Your task to perform on an android device: Open CNN.com Image 0: 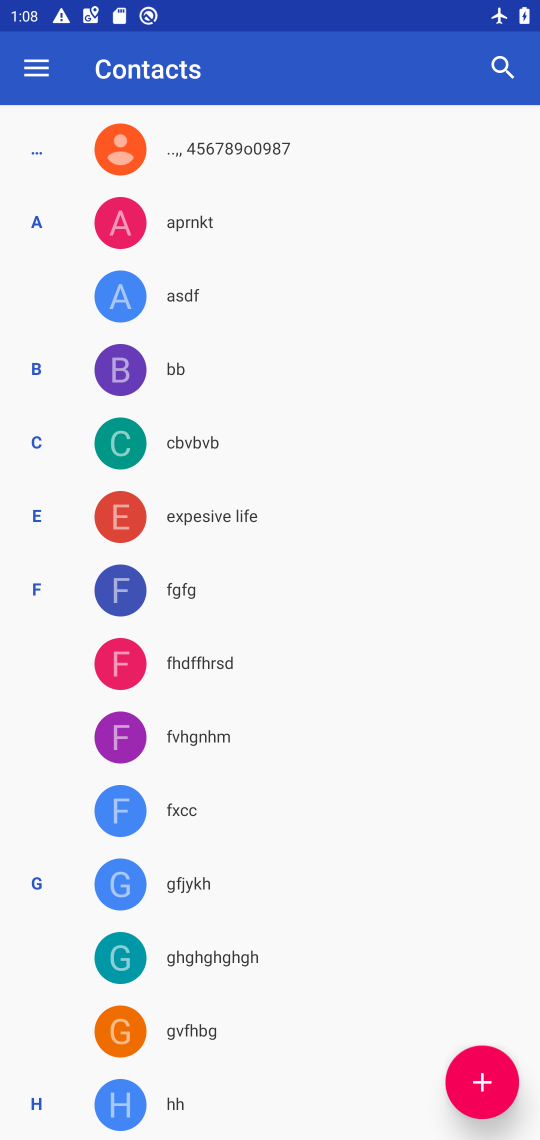
Step 0: press home button
Your task to perform on an android device: Open CNN.com Image 1: 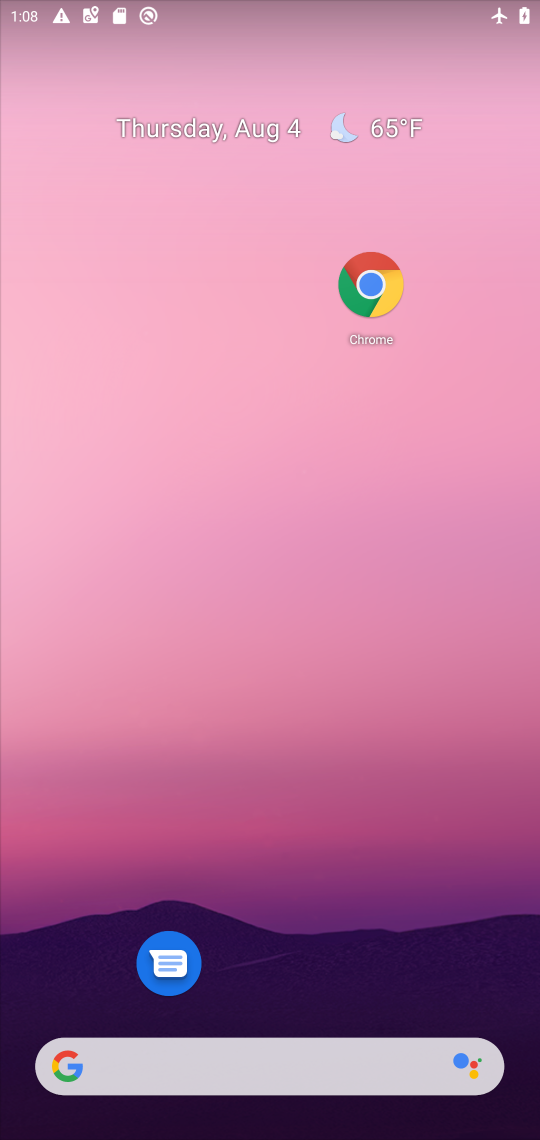
Step 1: drag from (270, 1013) to (257, 211)
Your task to perform on an android device: Open CNN.com Image 2: 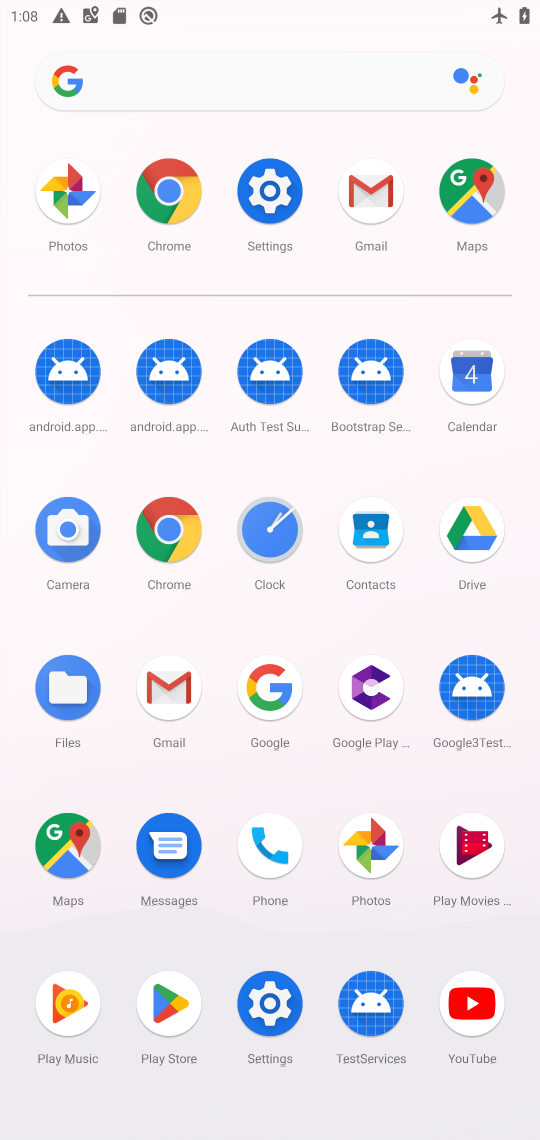
Step 2: click (180, 551)
Your task to perform on an android device: Open CNN.com Image 3: 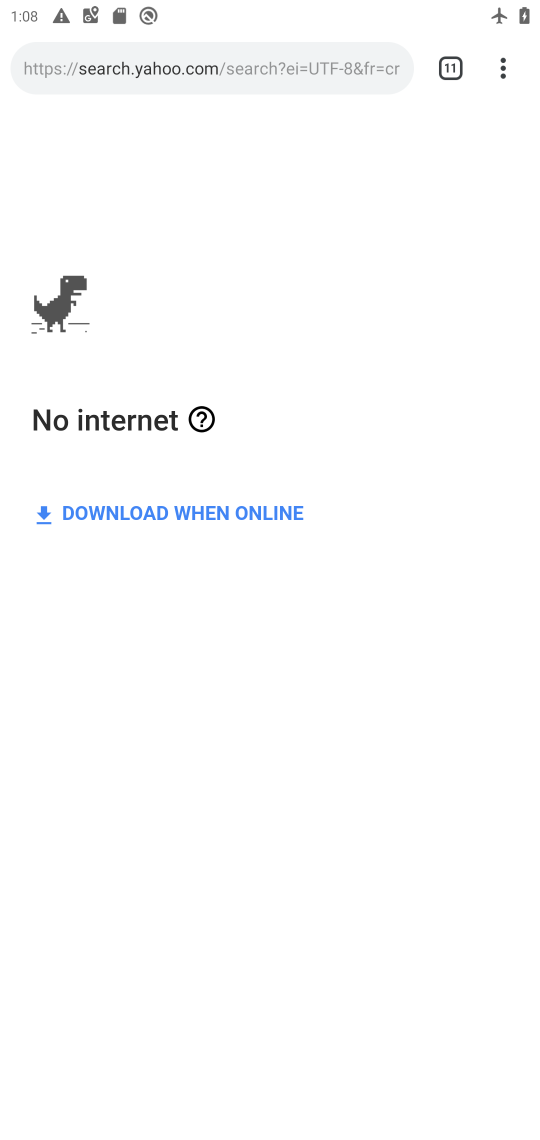
Step 3: click (505, 66)
Your task to perform on an android device: Open CNN.com Image 4: 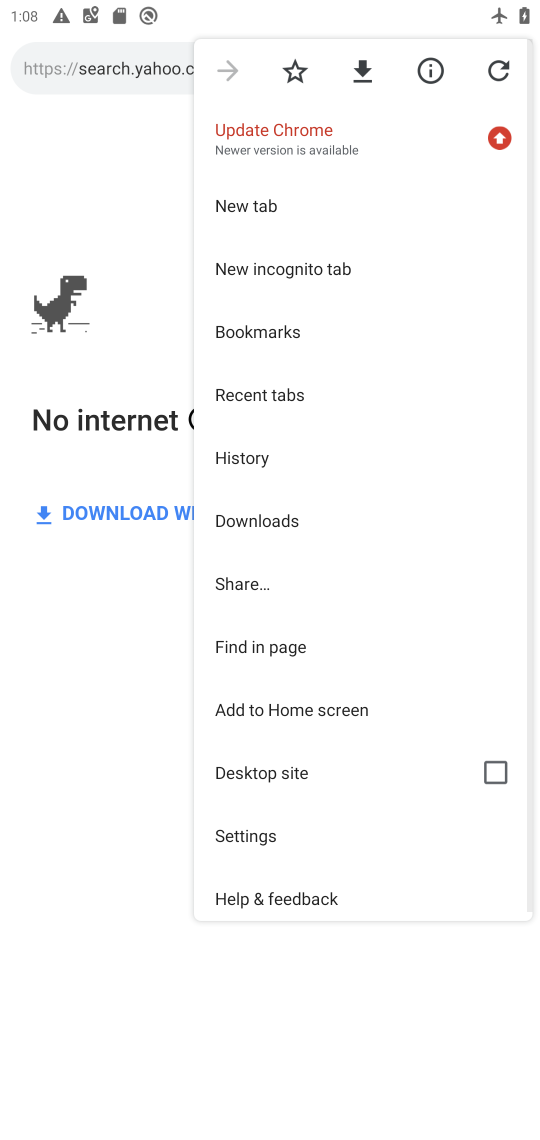
Step 4: click (279, 206)
Your task to perform on an android device: Open CNN.com Image 5: 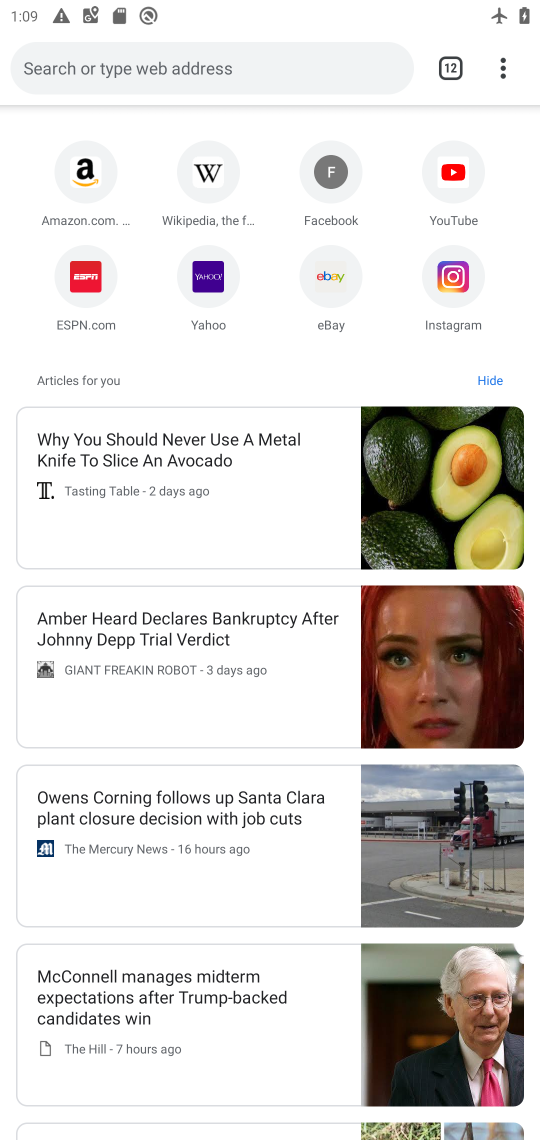
Step 5: click (304, 76)
Your task to perform on an android device: Open CNN.com Image 6: 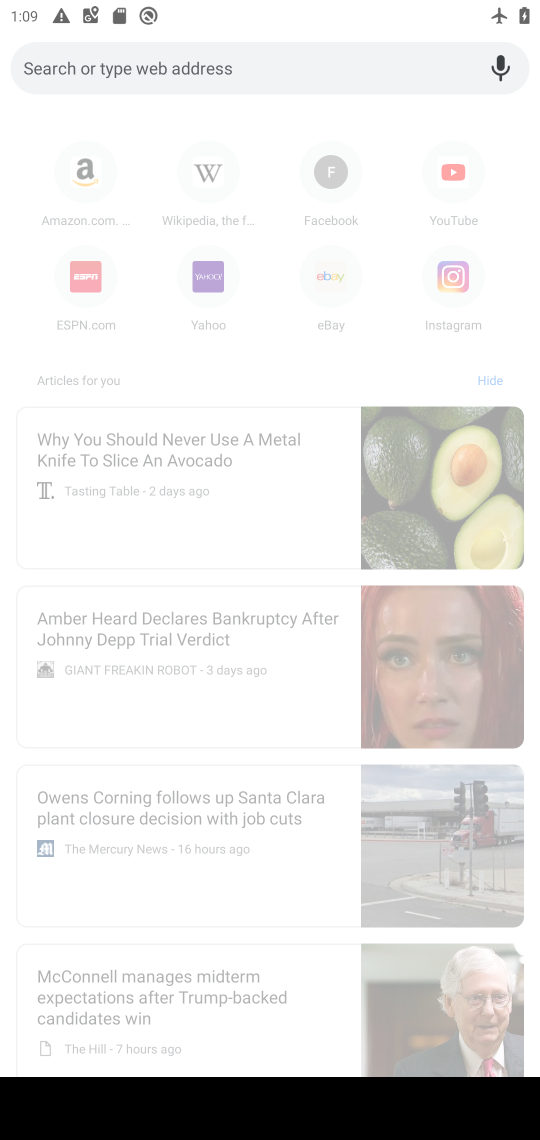
Step 6: type "CNN.com "
Your task to perform on an android device: Open CNN.com Image 7: 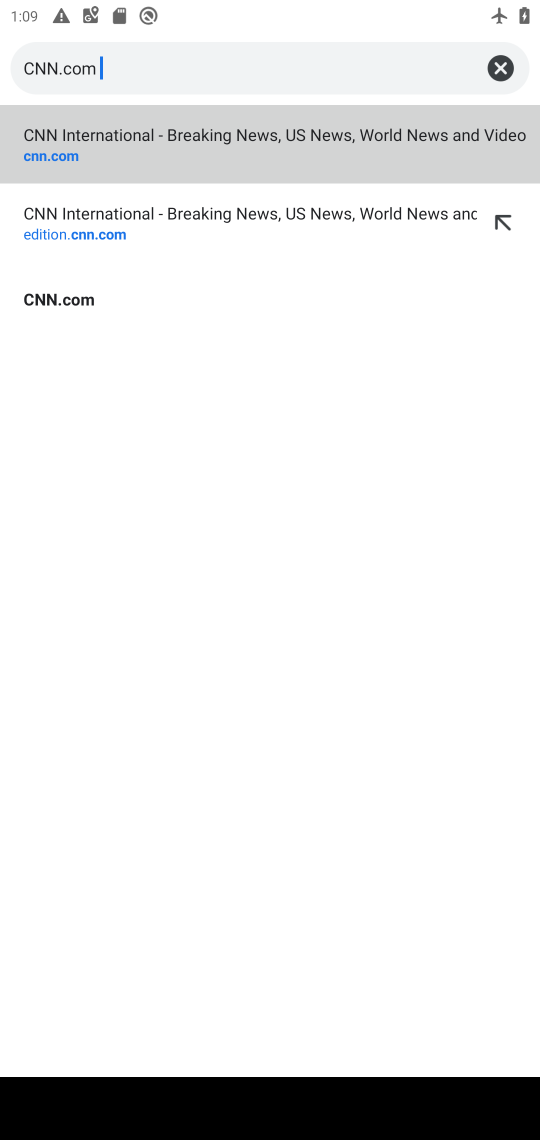
Step 7: click (145, 139)
Your task to perform on an android device: Open CNN.com Image 8: 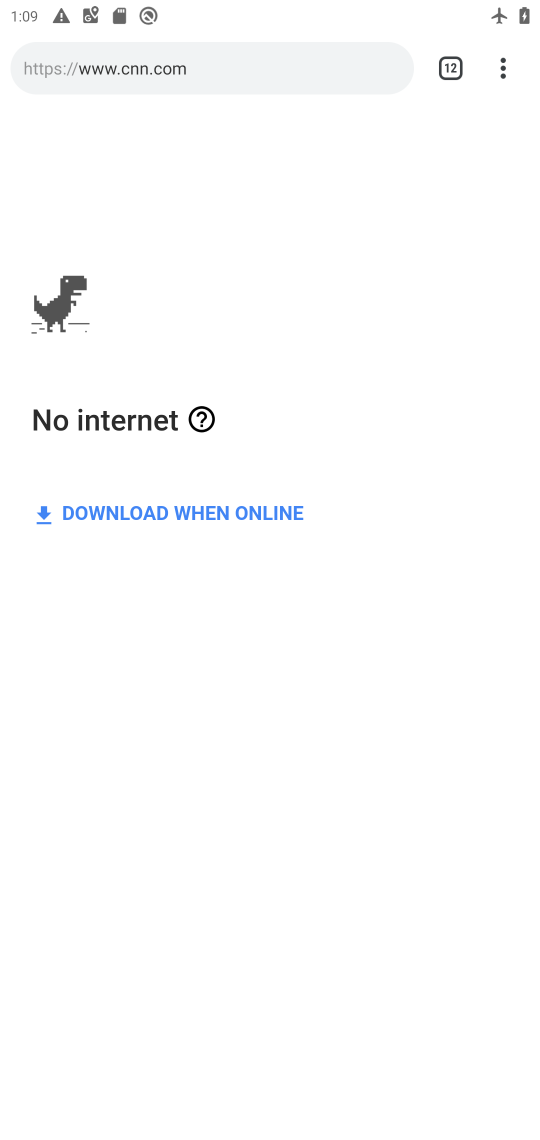
Step 8: task complete